Your task to perform on an android device: open chrome and create a bookmark for the current page Image 0: 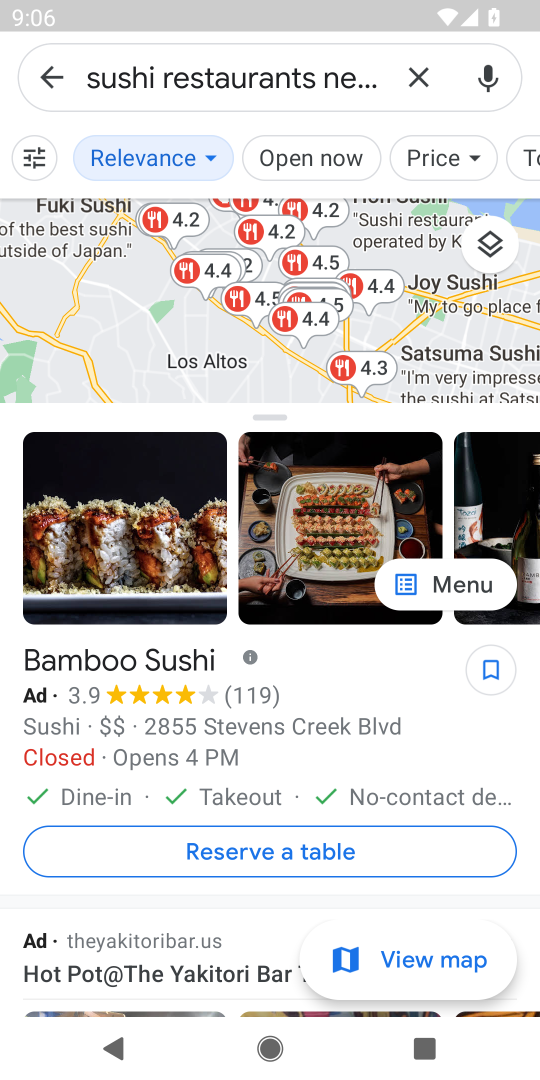
Step 0: press home button
Your task to perform on an android device: open chrome and create a bookmark for the current page Image 1: 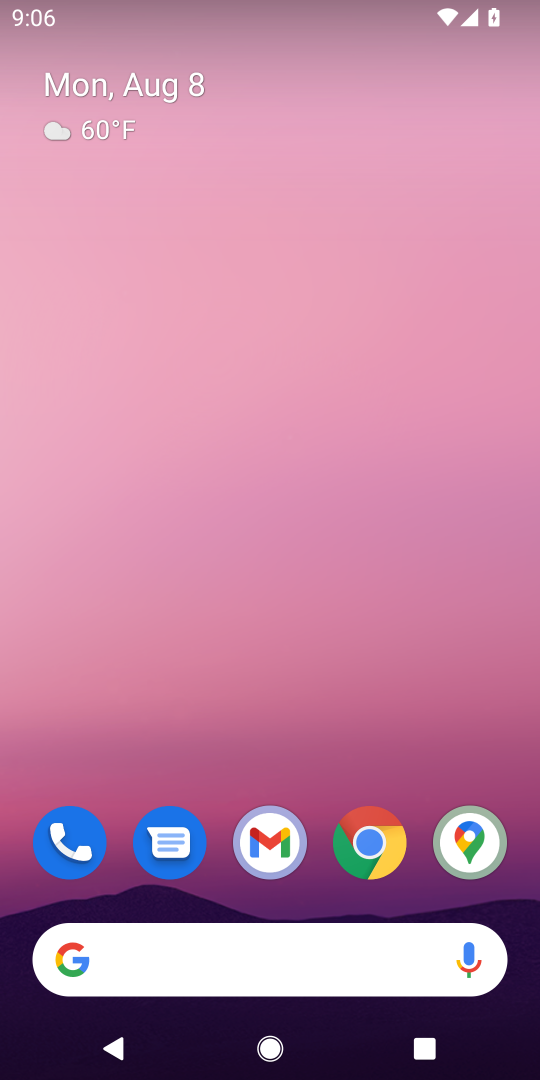
Step 1: click (376, 837)
Your task to perform on an android device: open chrome and create a bookmark for the current page Image 2: 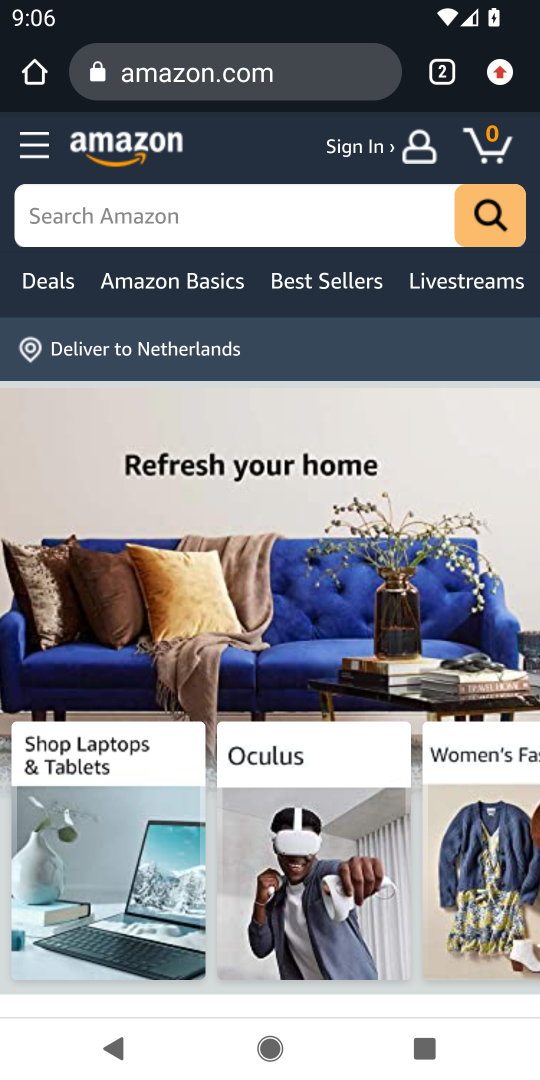
Step 2: click (513, 79)
Your task to perform on an android device: open chrome and create a bookmark for the current page Image 3: 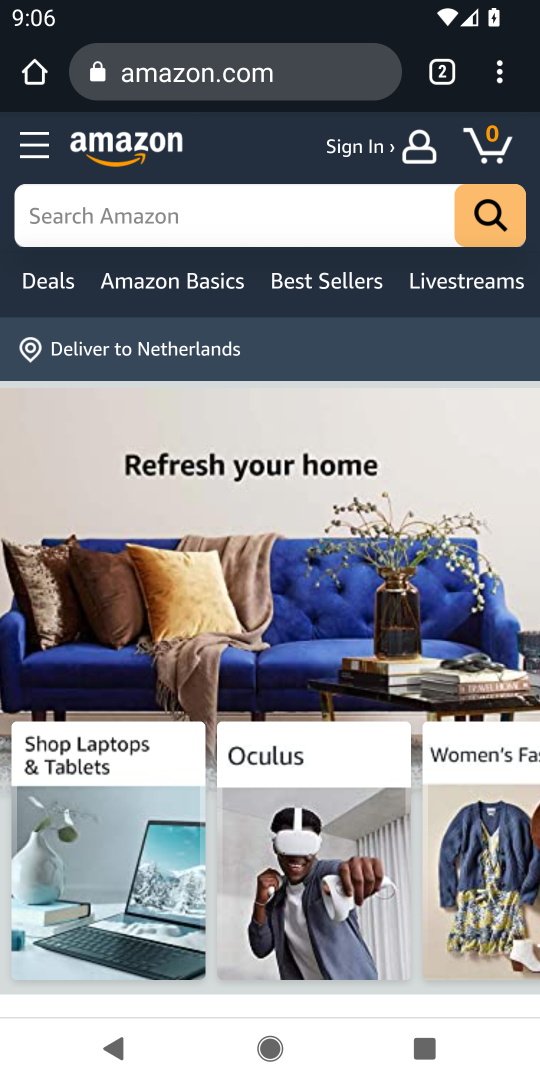
Step 3: click (510, 79)
Your task to perform on an android device: open chrome and create a bookmark for the current page Image 4: 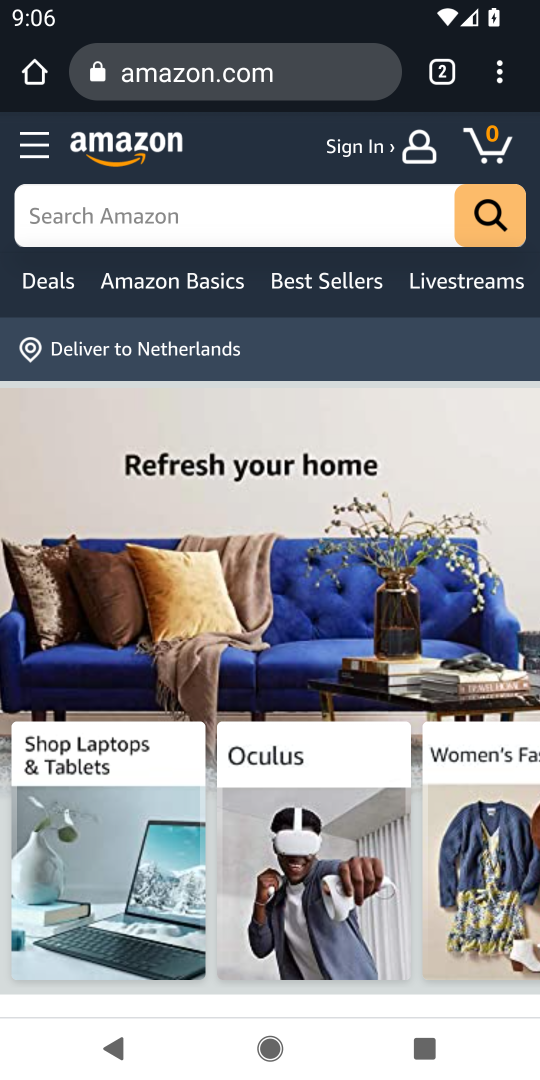
Step 4: click (532, 97)
Your task to perform on an android device: open chrome and create a bookmark for the current page Image 5: 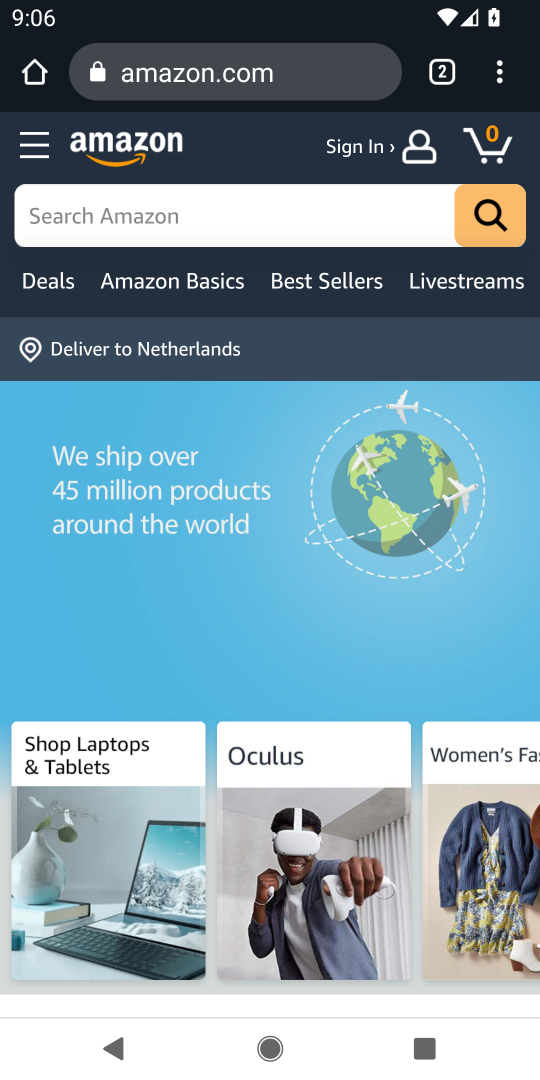
Step 5: click (532, 111)
Your task to perform on an android device: open chrome and create a bookmark for the current page Image 6: 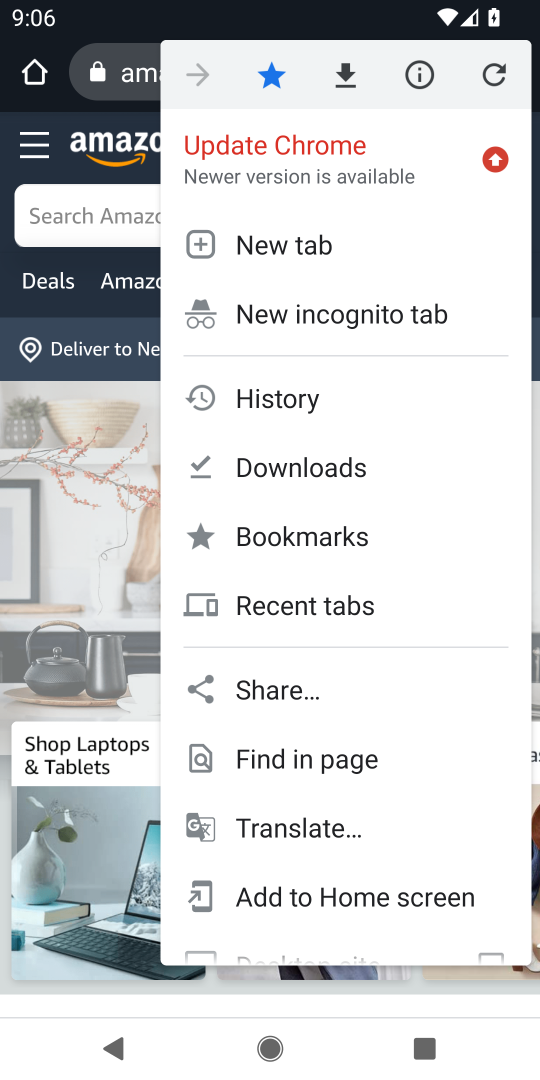
Step 6: task complete